Your task to perform on an android device: Turn off the flashlight Image 0: 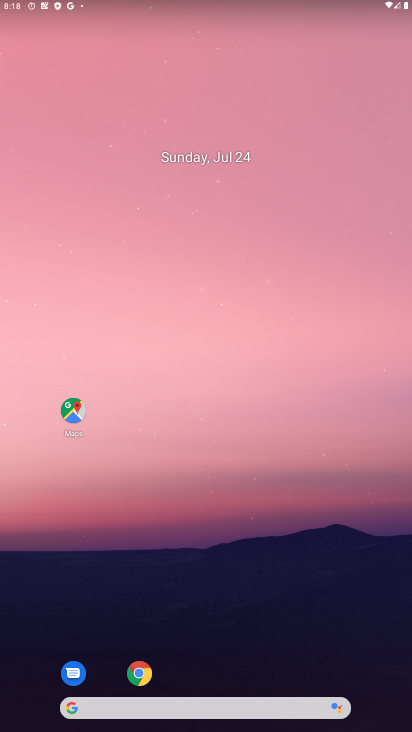
Step 0: drag from (29, 690) to (146, 312)
Your task to perform on an android device: Turn off the flashlight Image 1: 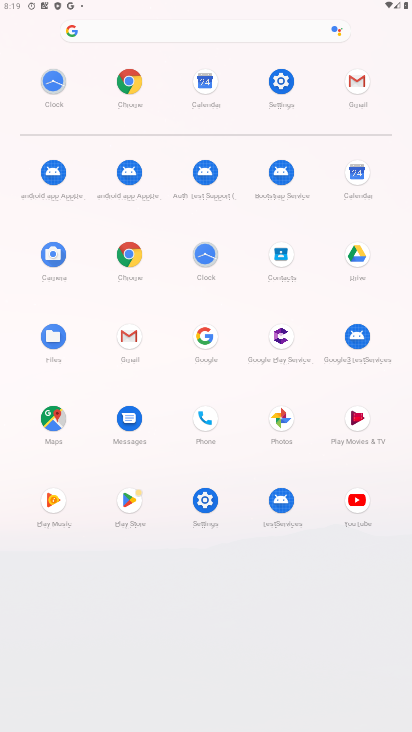
Step 1: click (185, 503)
Your task to perform on an android device: Turn off the flashlight Image 2: 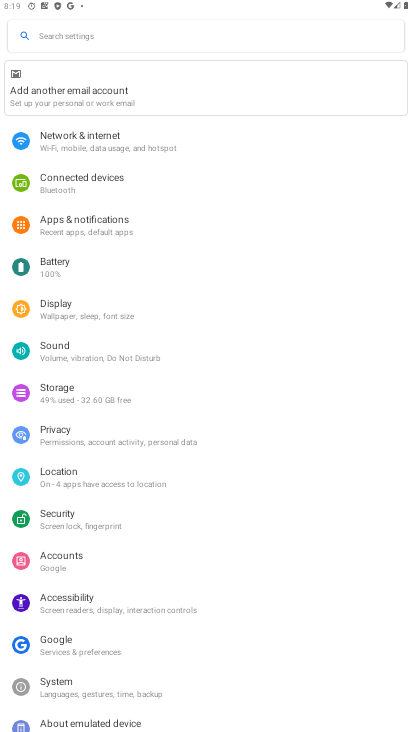
Step 2: task complete